Your task to perform on an android device: Check the weather Image 0: 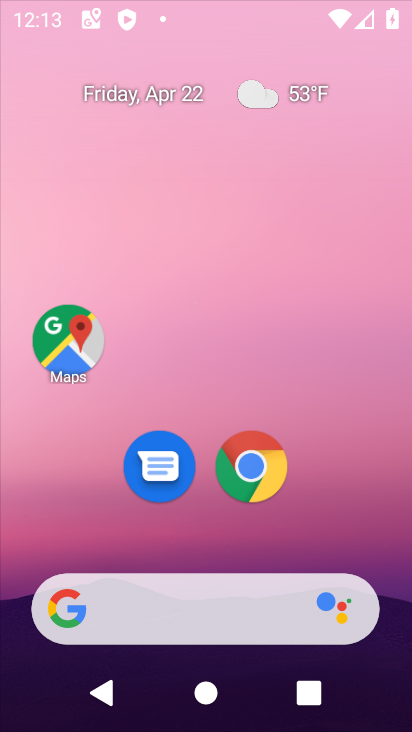
Step 0: click (277, 19)
Your task to perform on an android device: Check the weather Image 1: 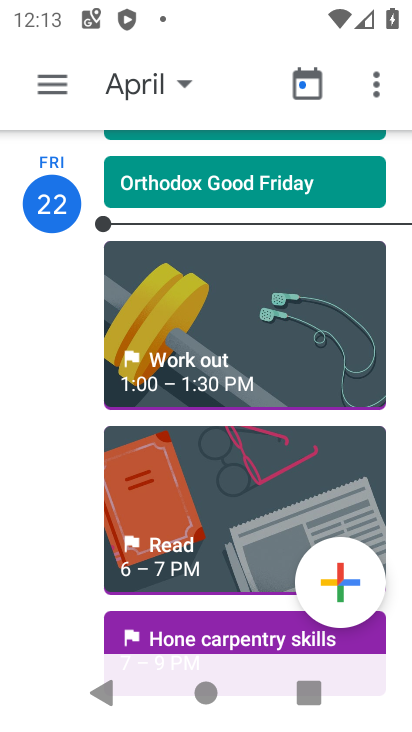
Step 1: press back button
Your task to perform on an android device: Check the weather Image 2: 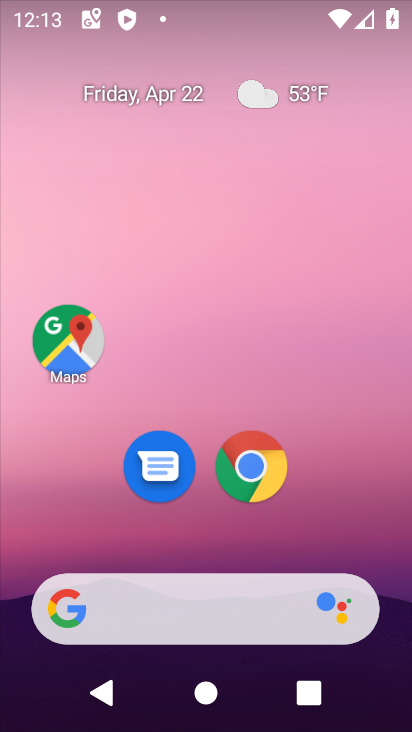
Step 2: click (249, 462)
Your task to perform on an android device: Check the weather Image 3: 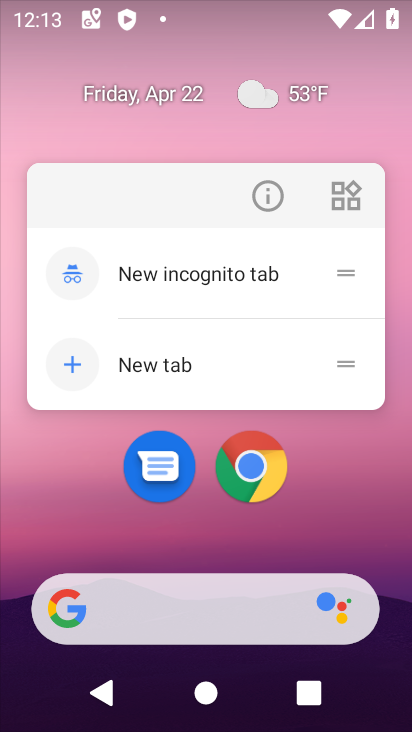
Step 3: click (249, 462)
Your task to perform on an android device: Check the weather Image 4: 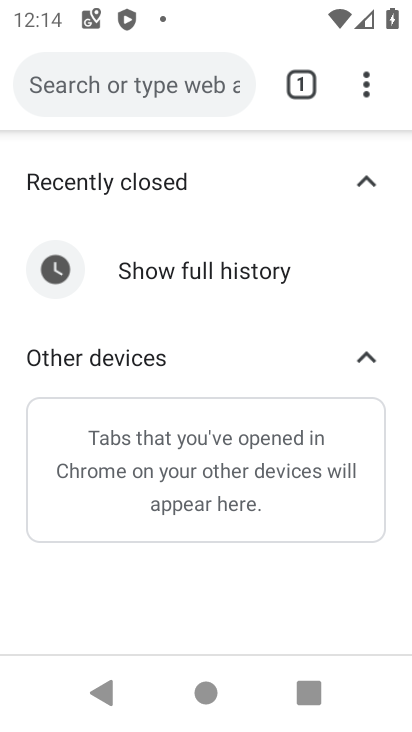
Step 4: press back button
Your task to perform on an android device: Check the weather Image 5: 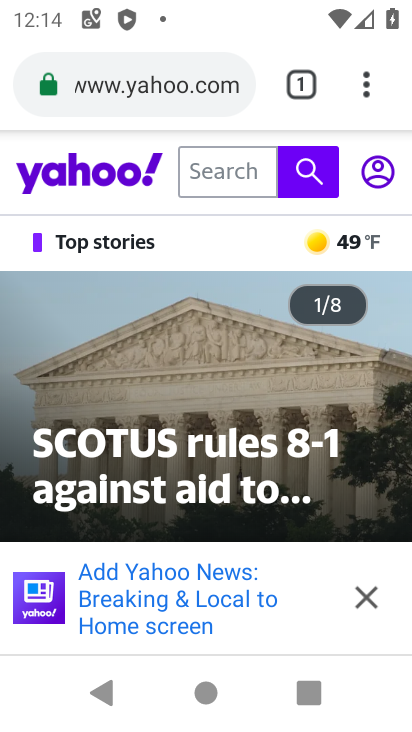
Step 5: click (175, 83)
Your task to perform on an android device: Check the weather Image 6: 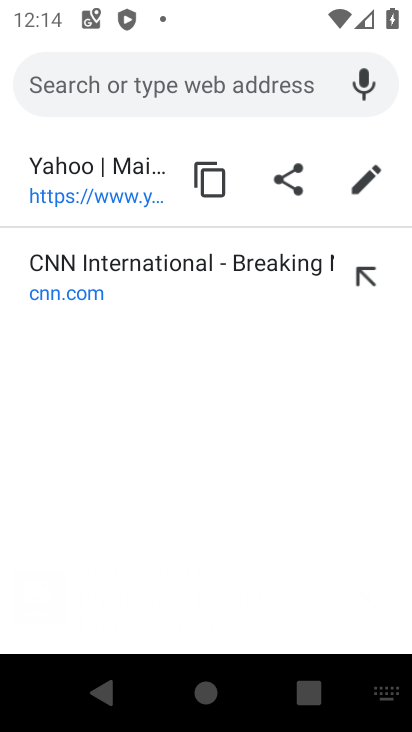
Step 6: type " weather"
Your task to perform on an android device: Check the weather Image 7: 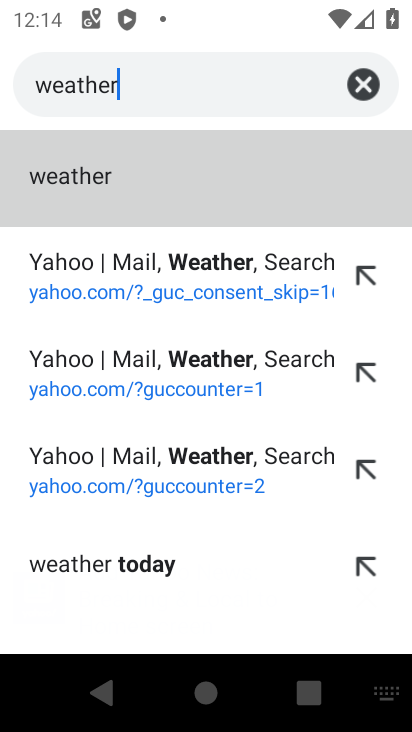
Step 7: type ""
Your task to perform on an android device: Check the weather Image 8: 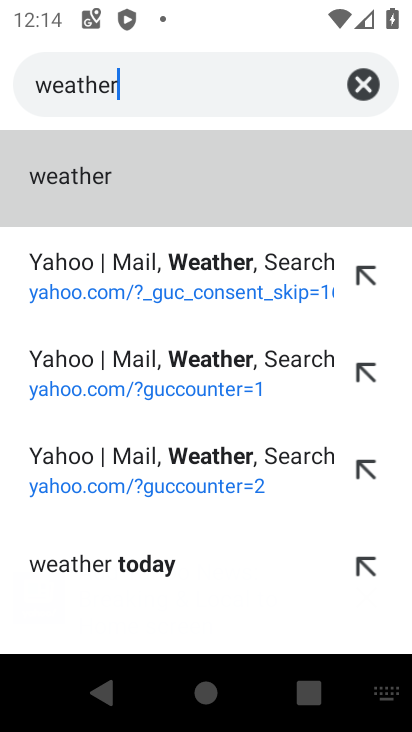
Step 8: click (109, 165)
Your task to perform on an android device: Check the weather Image 9: 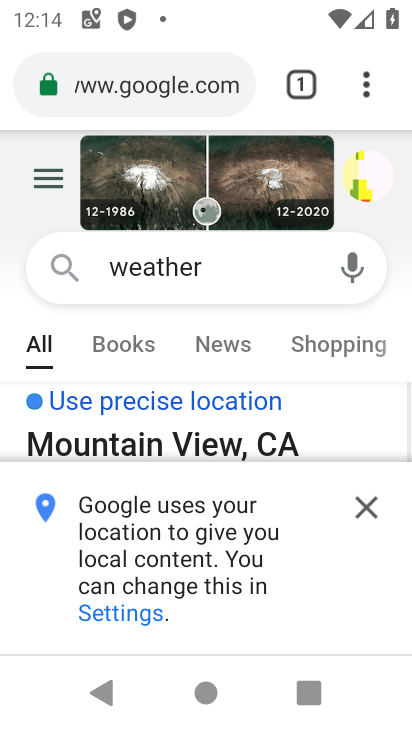
Step 9: drag from (215, 378) to (235, 189)
Your task to perform on an android device: Check the weather Image 10: 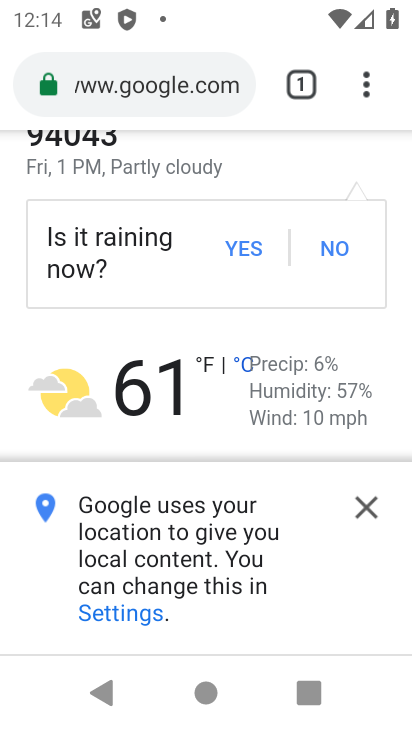
Step 10: drag from (246, 199) to (233, 346)
Your task to perform on an android device: Check the weather Image 11: 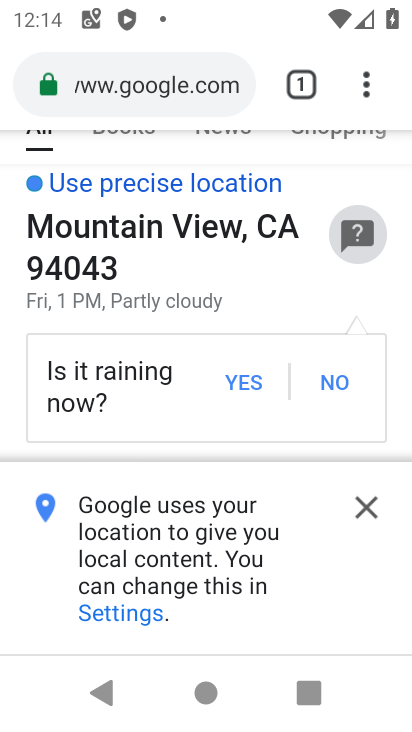
Step 11: click (373, 500)
Your task to perform on an android device: Check the weather Image 12: 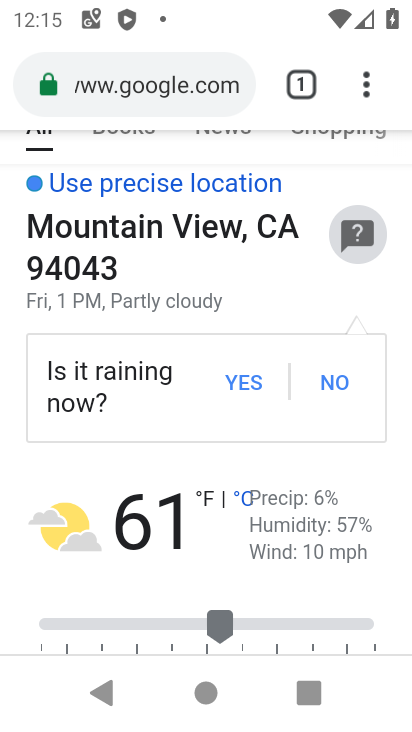
Step 12: task complete